Your task to perform on an android device: Go to Android settings Image 0: 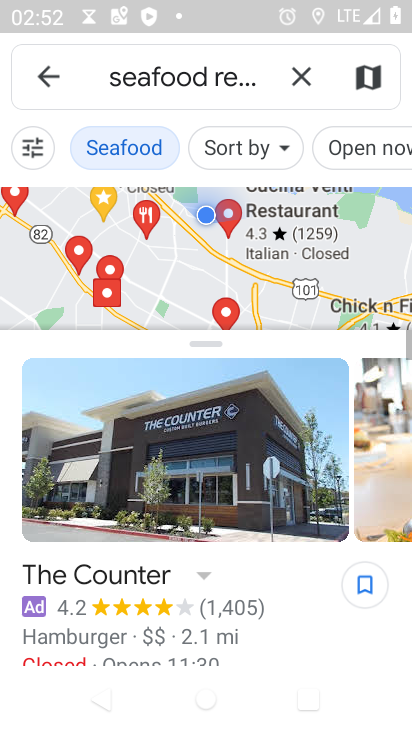
Step 0: press home button
Your task to perform on an android device: Go to Android settings Image 1: 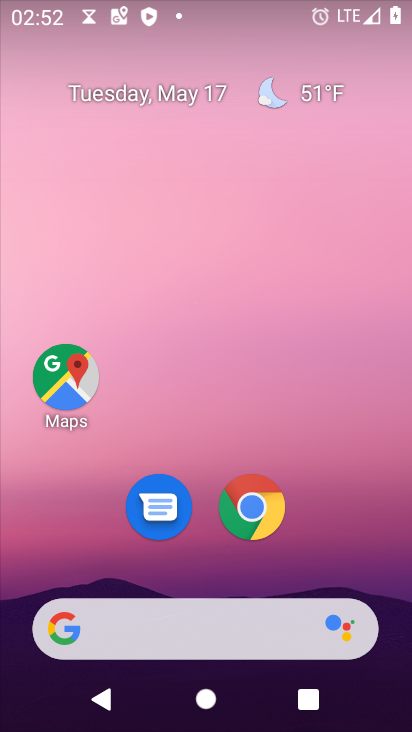
Step 1: drag from (300, 558) to (361, 65)
Your task to perform on an android device: Go to Android settings Image 2: 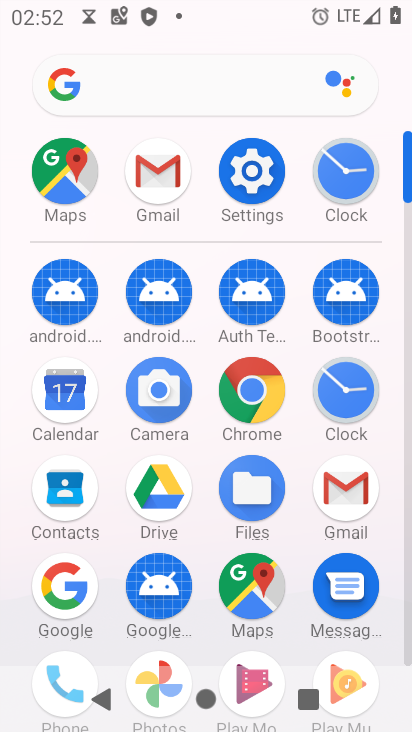
Step 2: click (255, 178)
Your task to perform on an android device: Go to Android settings Image 3: 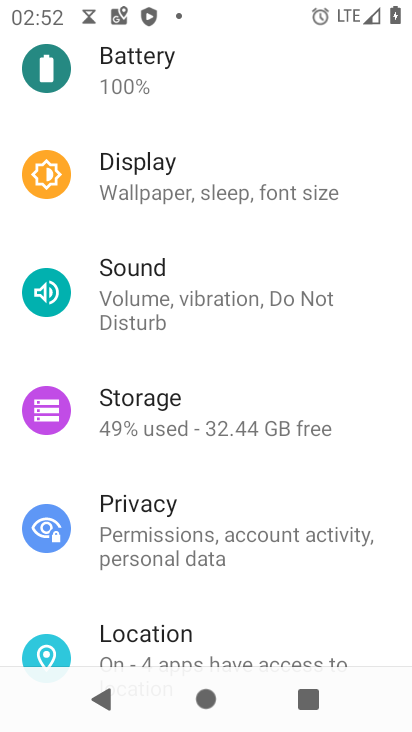
Step 3: drag from (176, 562) to (218, 223)
Your task to perform on an android device: Go to Android settings Image 4: 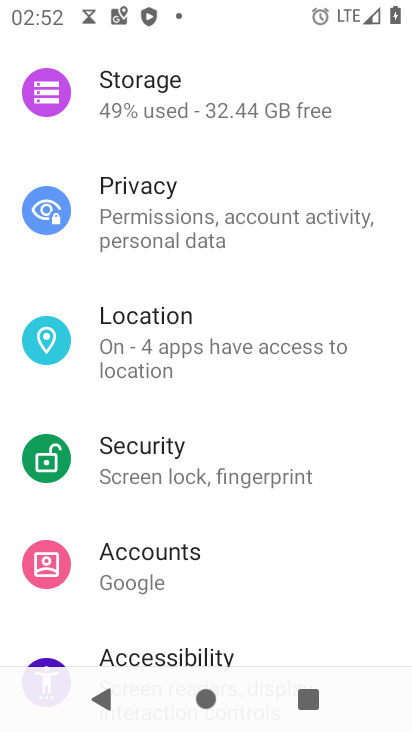
Step 4: drag from (228, 584) to (304, 289)
Your task to perform on an android device: Go to Android settings Image 5: 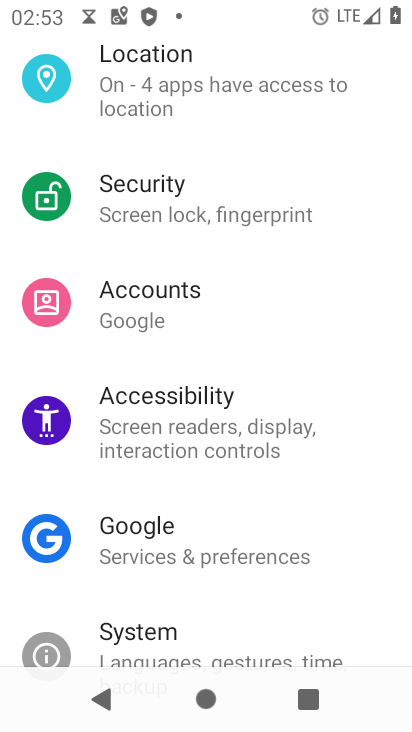
Step 5: drag from (260, 629) to (272, 308)
Your task to perform on an android device: Go to Android settings Image 6: 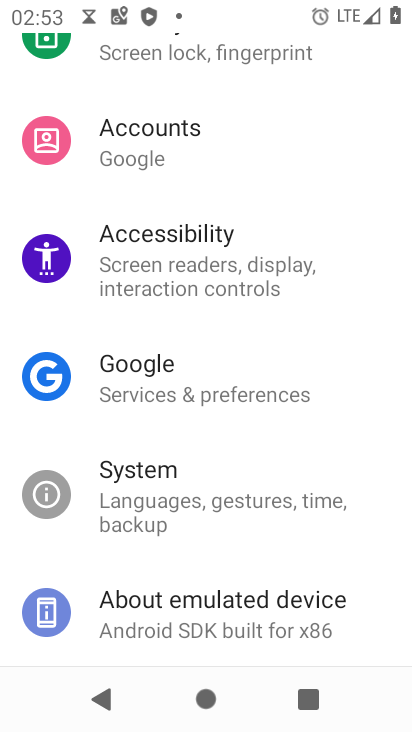
Step 6: click (164, 500)
Your task to perform on an android device: Go to Android settings Image 7: 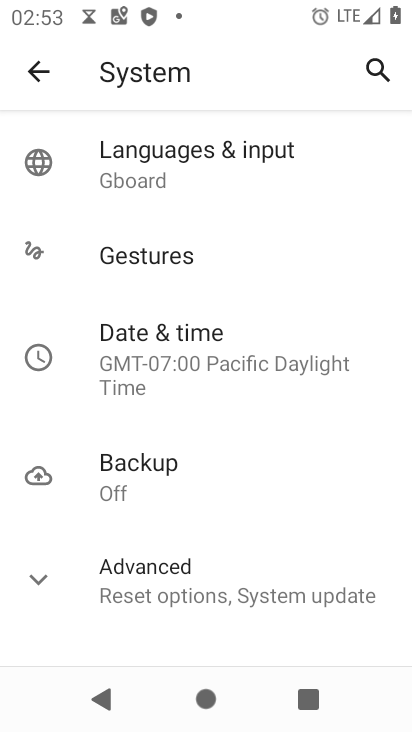
Step 7: task complete